Your task to perform on an android device: make emails show in primary in the gmail app Image 0: 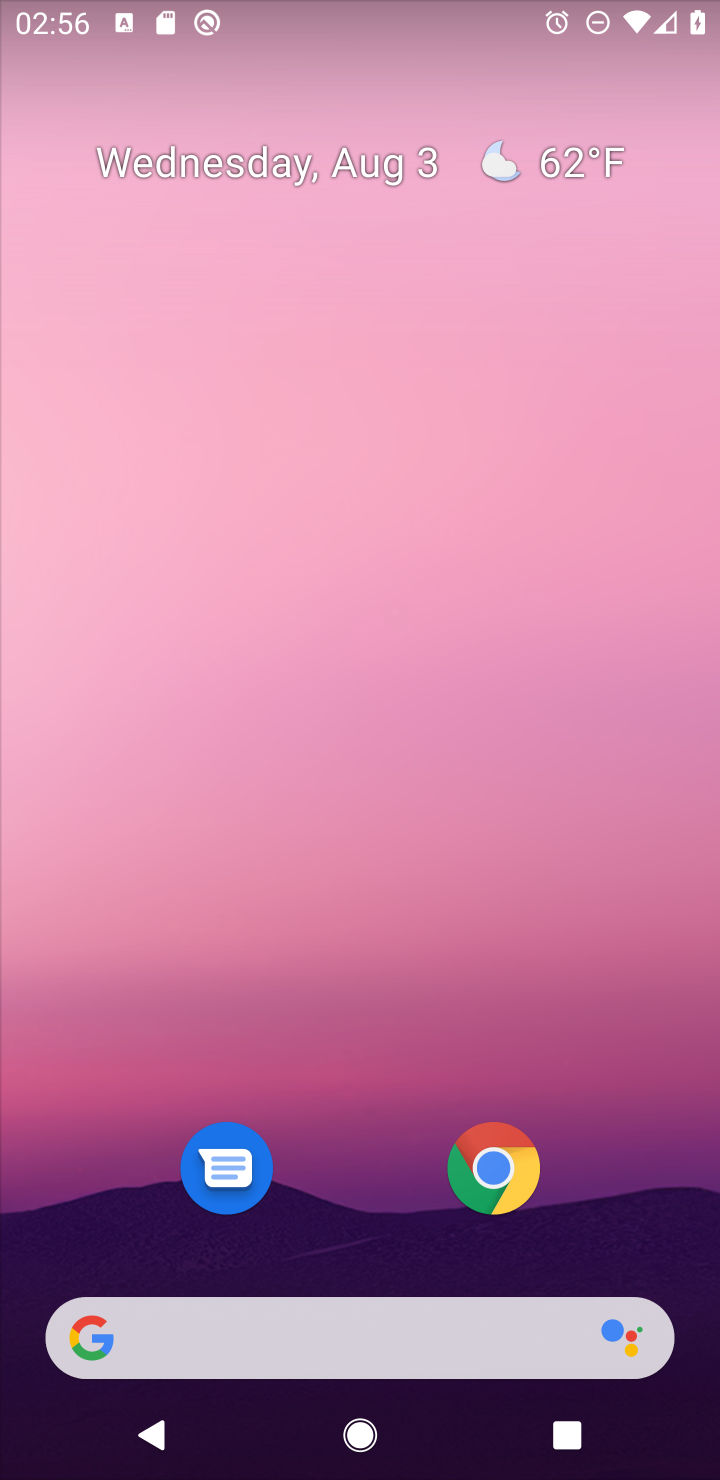
Step 0: drag from (681, 1248) to (615, 302)
Your task to perform on an android device: make emails show in primary in the gmail app Image 1: 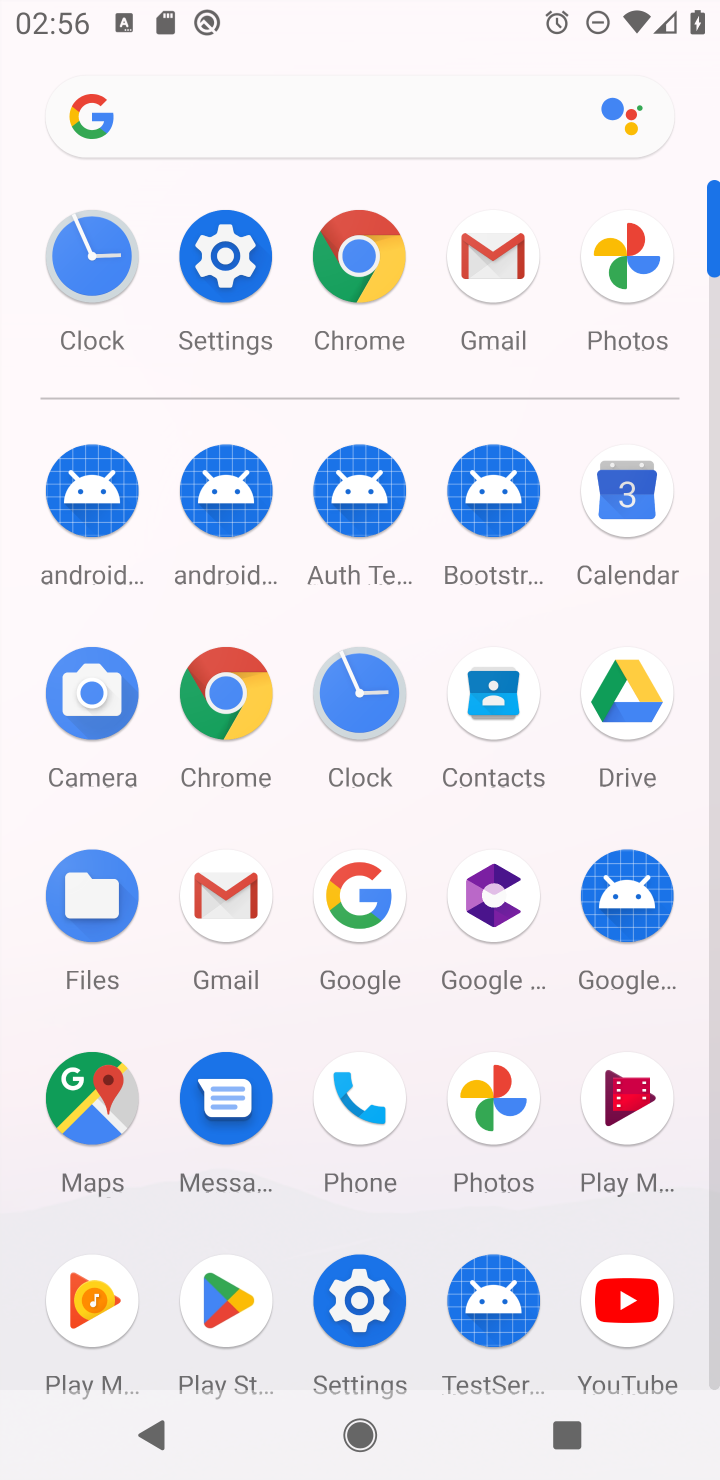
Step 1: click (229, 897)
Your task to perform on an android device: make emails show in primary in the gmail app Image 2: 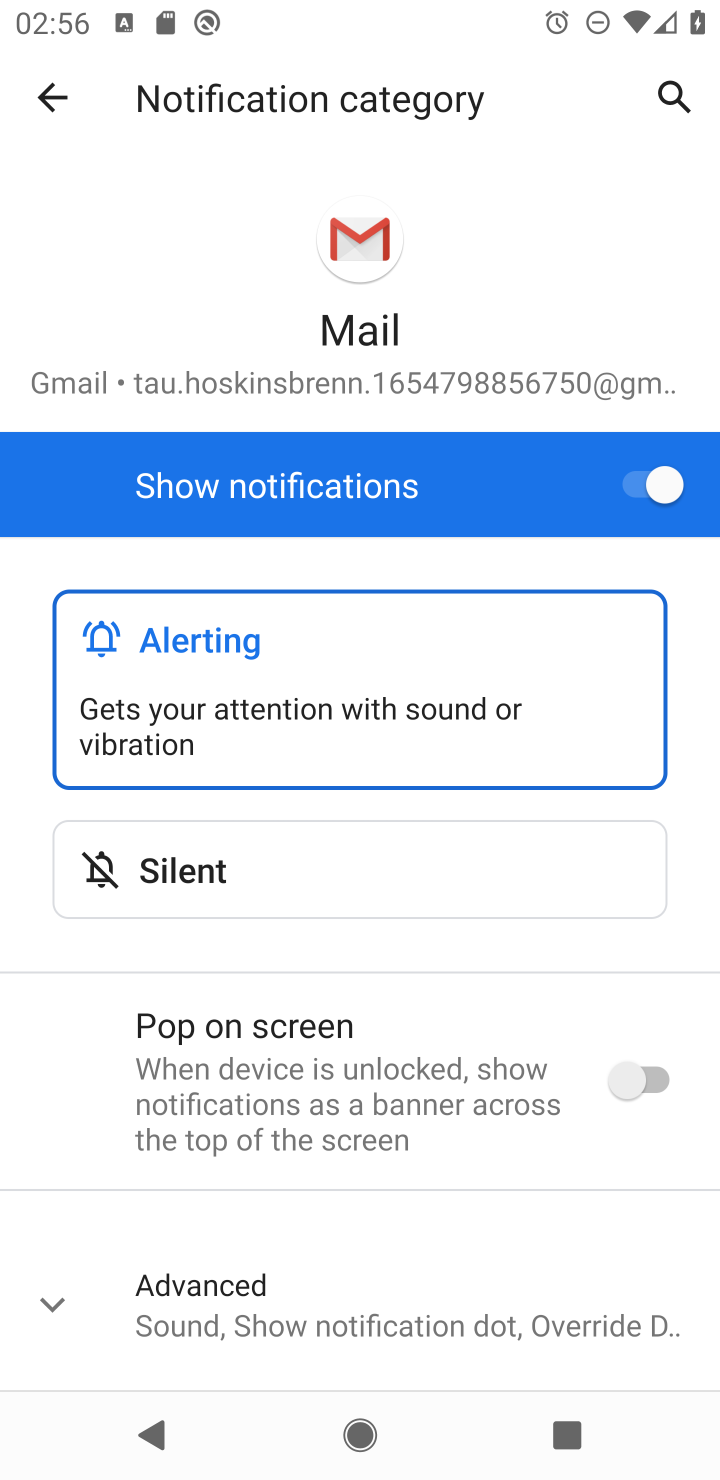
Step 2: press home button
Your task to perform on an android device: make emails show in primary in the gmail app Image 3: 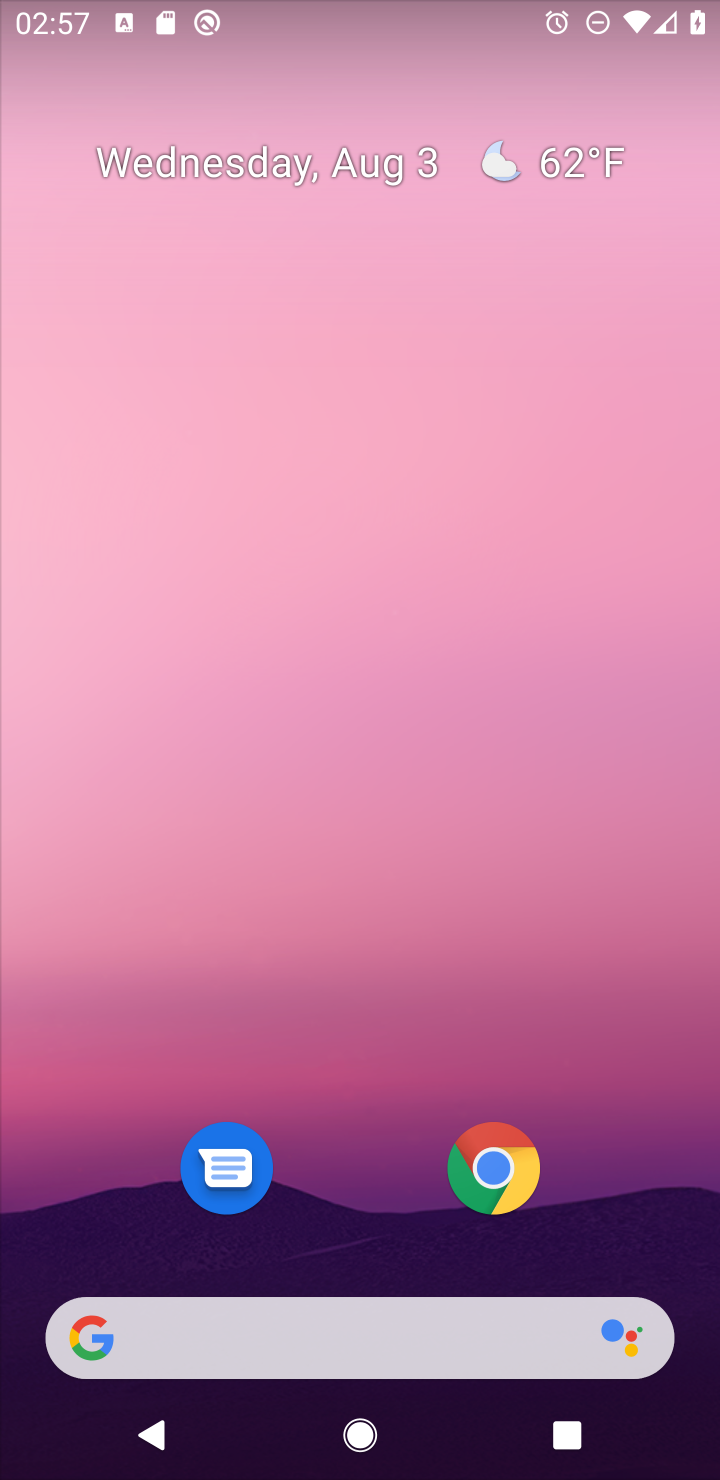
Step 3: drag from (644, 949) to (628, 274)
Your task to perform on an android device: make emails show in primary in the gmail app Image 4: 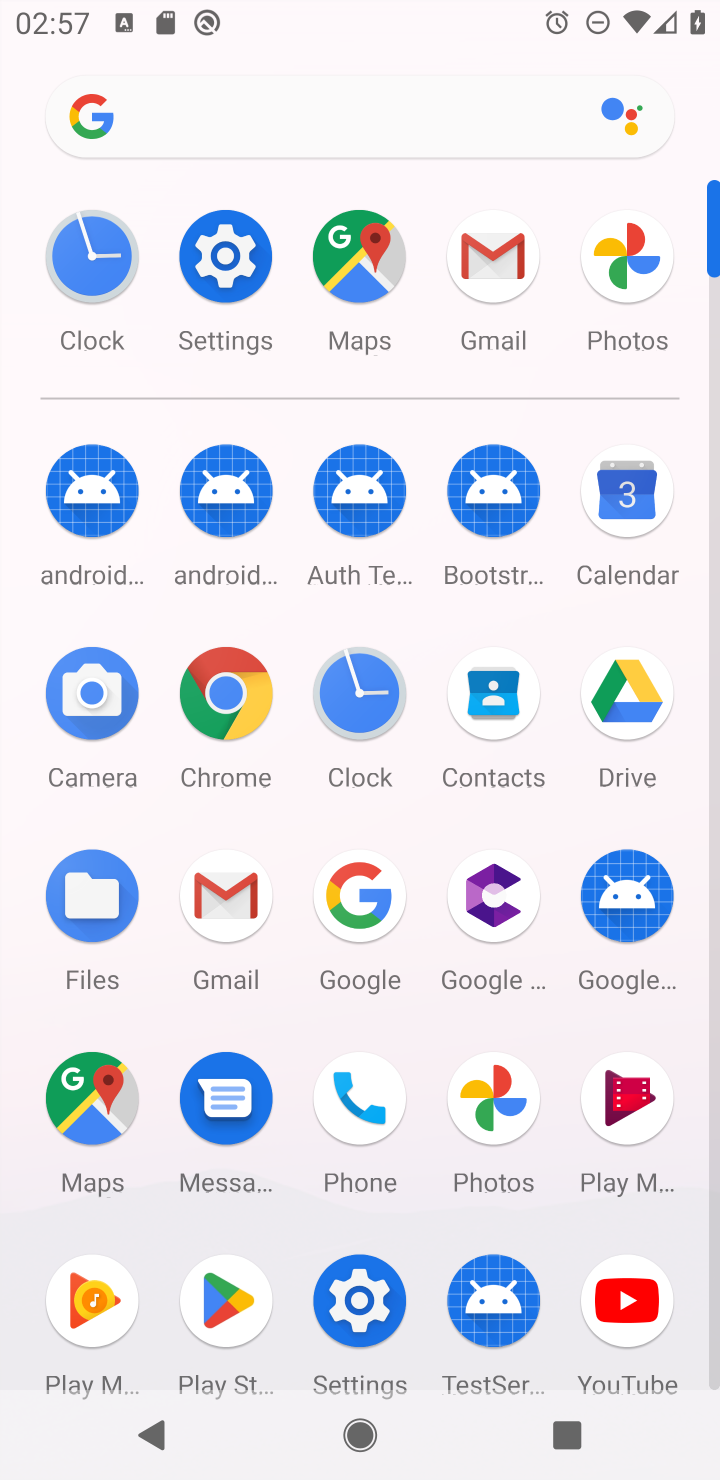
Step 4: click (221, 899)
Your task to perform on an android device: make emails show in primary in the gmail app Image 5: 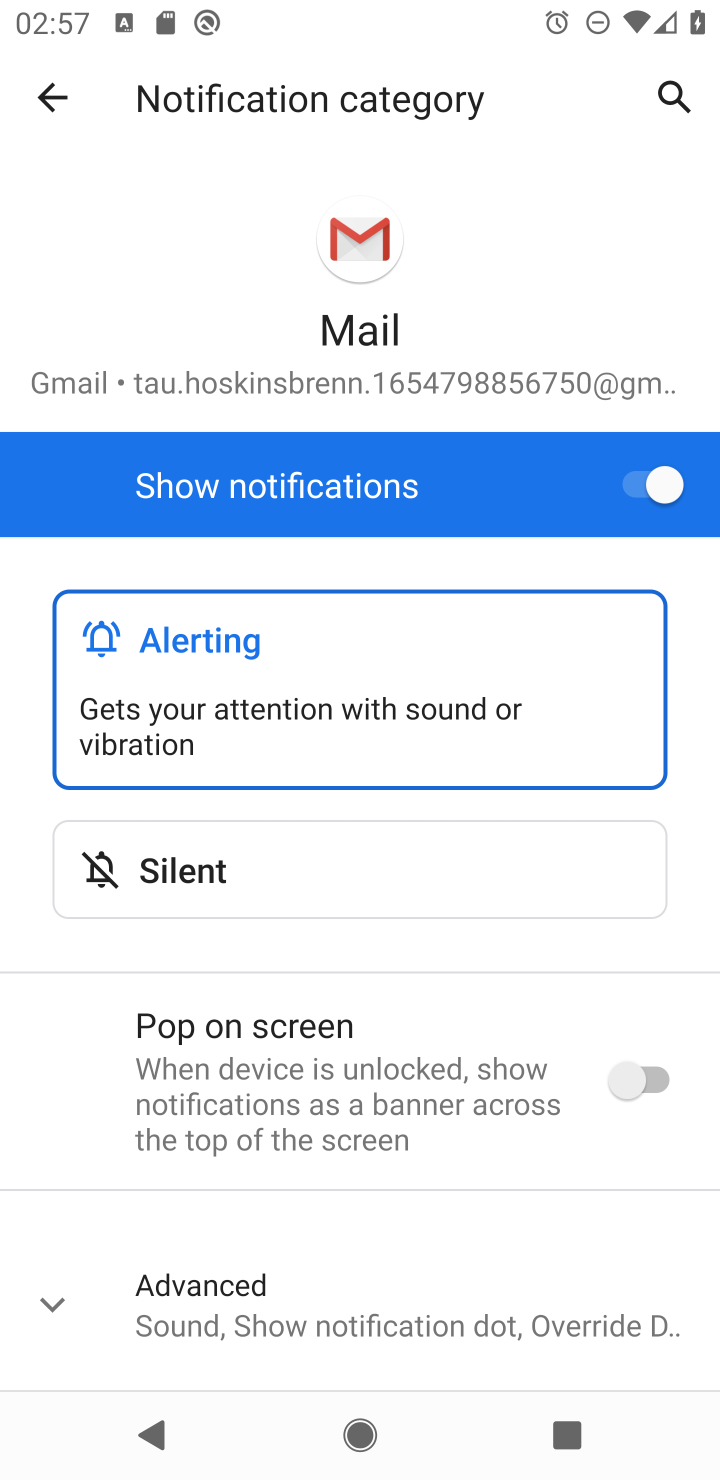
Step 5: press back button
Your task to perform on an android device: make emails show in primary in the gmail app Image 6: 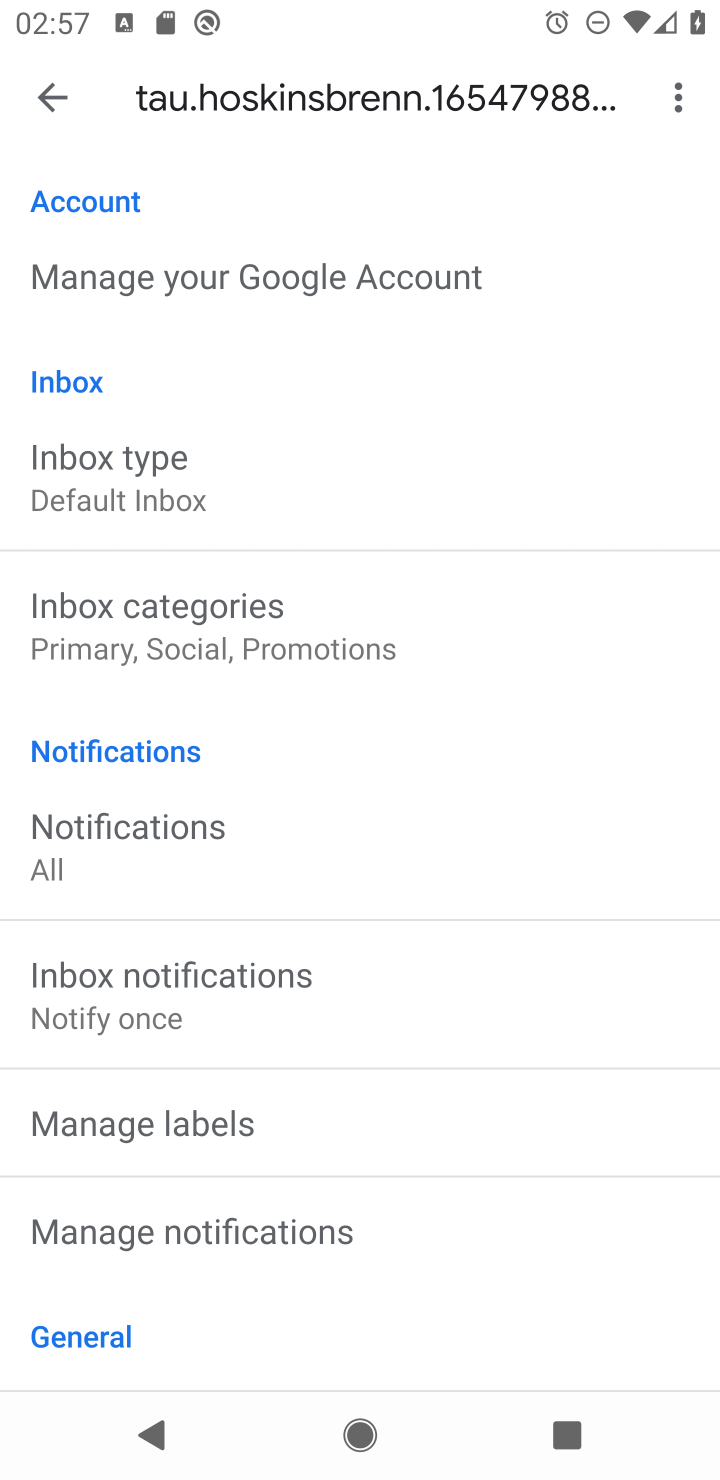
Step 6: click (175, 638)
Your task to perform on an android device: make emails show in primary in the gmail app Image 7: 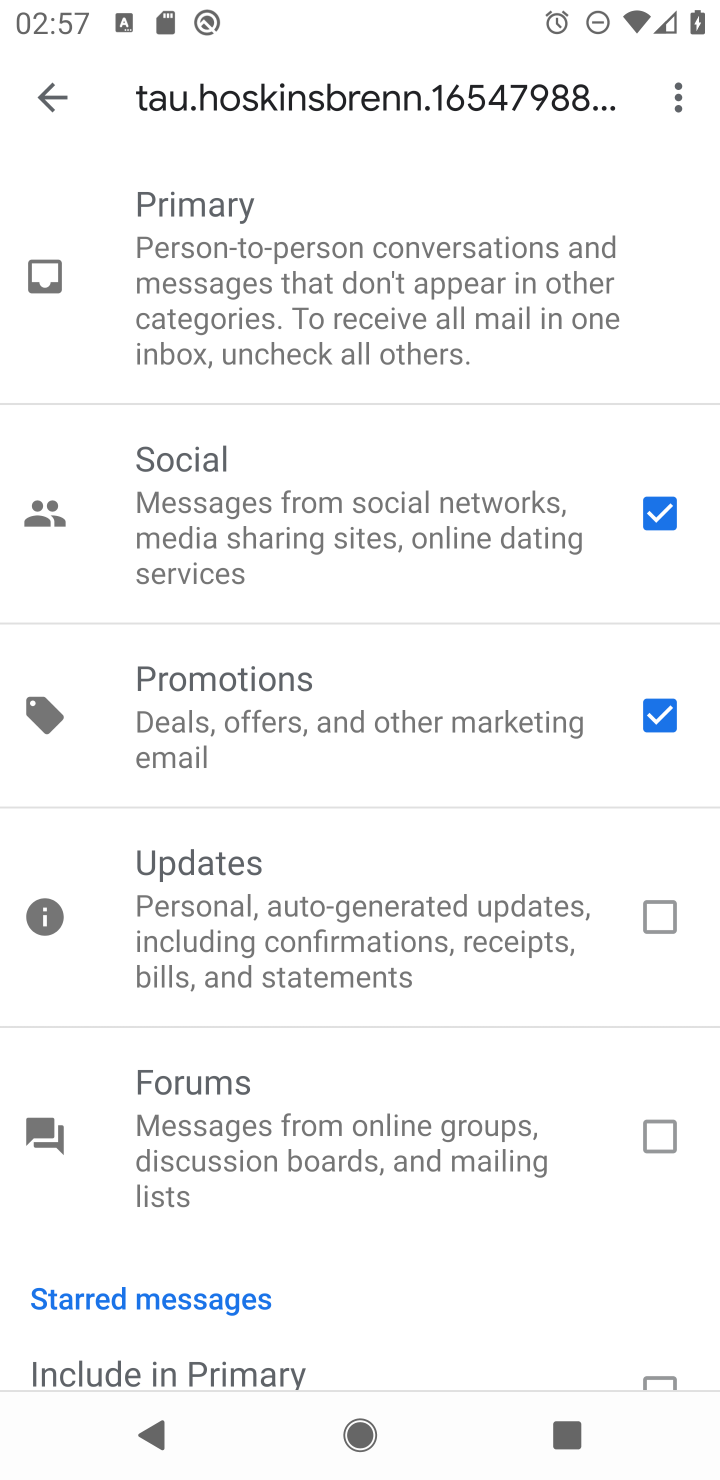
Step 7: click (647, 708)
Your task to perform on an android device: make emails show in primary in the gmail app Image 8: 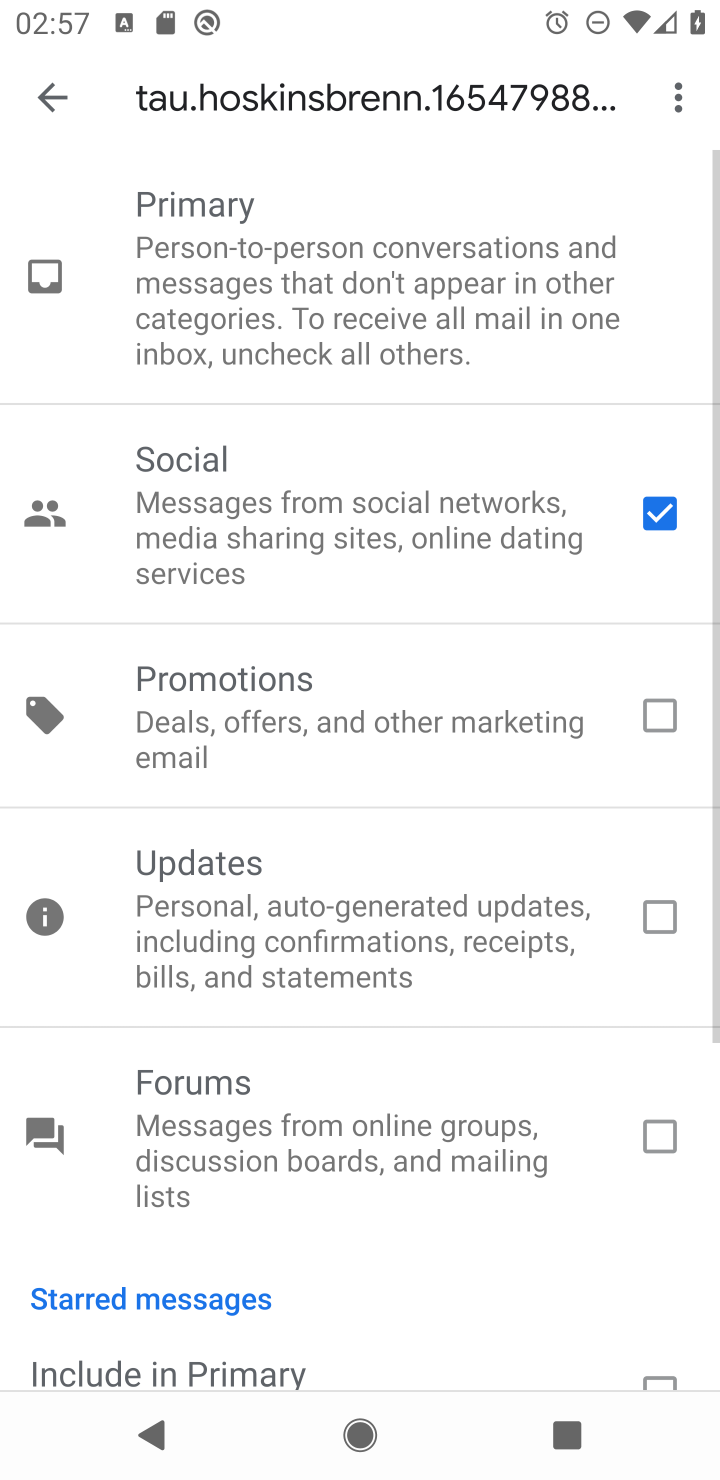
Step 8: click (658, 522)
Your task to perform on an android device: make emails show in primary in the gmail app Image 9: 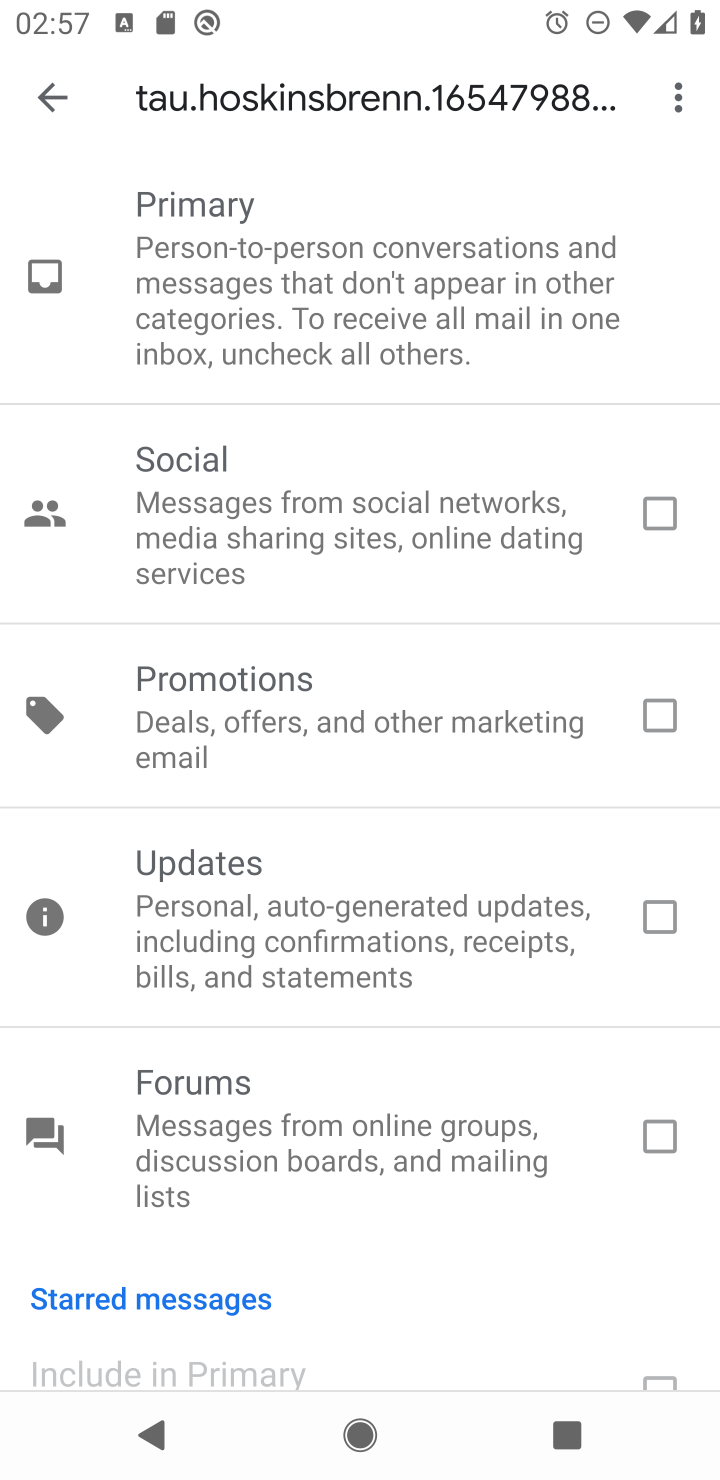
Step 9: task complete